Your task to perform on an android device: move an email to a new category in the gmail app Image 0: 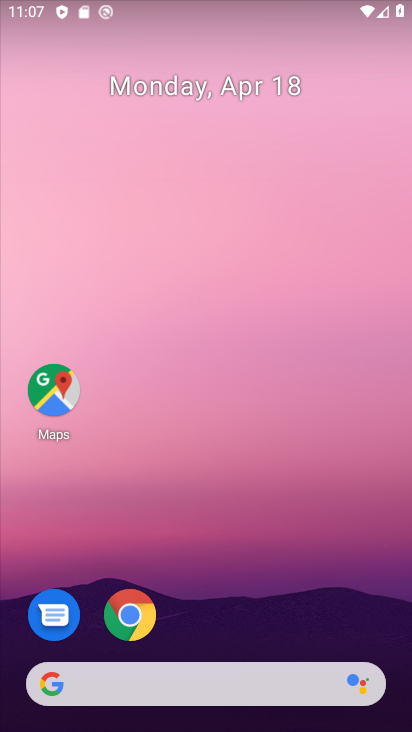
Step 0: drag from (358, 559) to (361, 105)
Your task to perform on an android device: move an email to a new category in the gmail app Image 1: 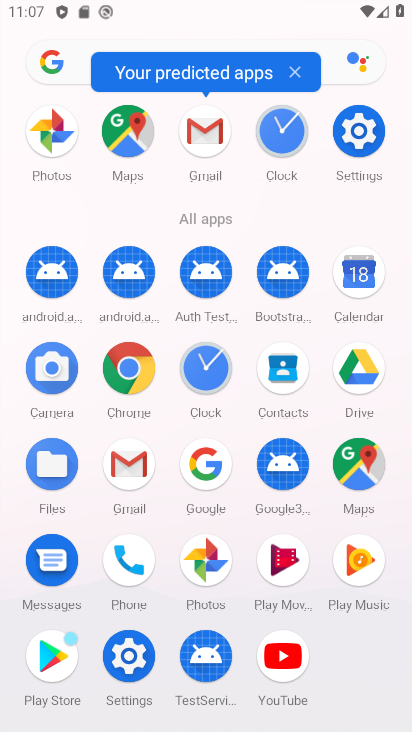
Step 1: click (129, 472)
Your task to perform on an android device: move an email to a new category in the gmail app Image 2: 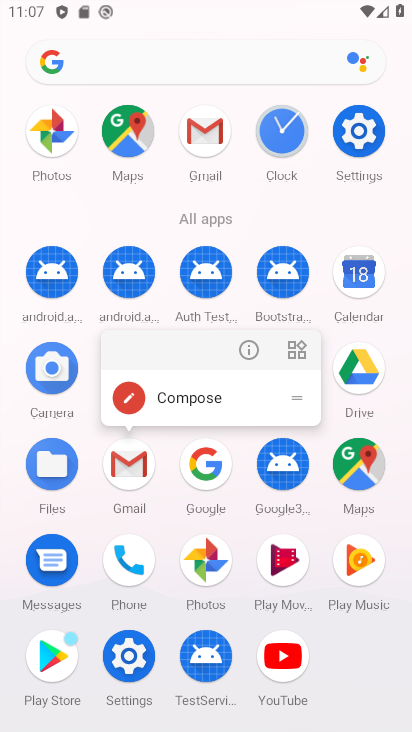
Step 2: click (129, 472)
Your task to perform on an android device: move an email to a new category in the gmail app Image 3: 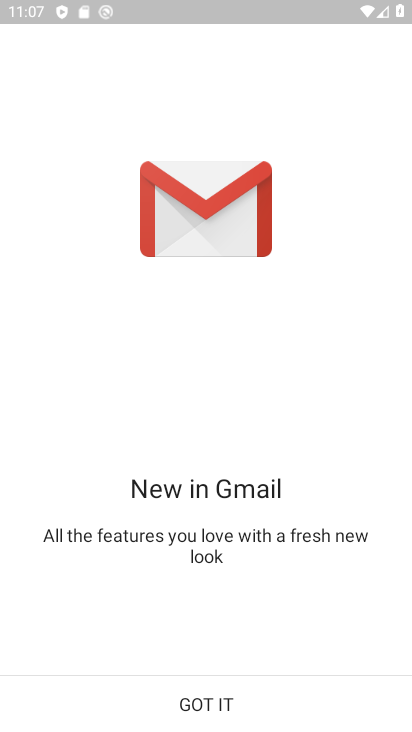
Step 3: click (209, 704)
Your task to perform on an android device: move an email to a new category in the gmail app Image 4: 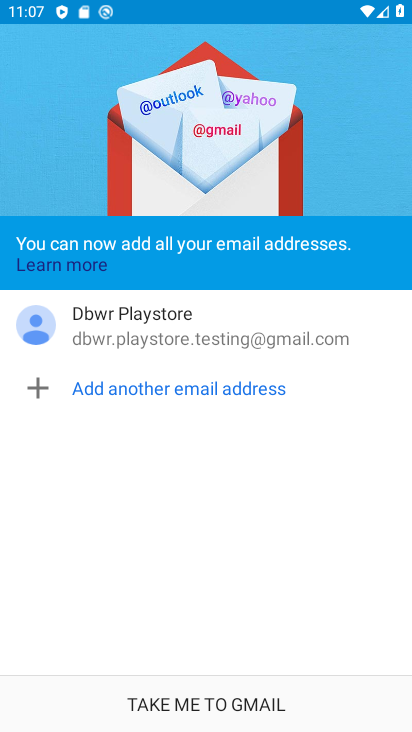
Step 4: click (249, 694)
Your task to perform on an android device: move an email to a new category in the gmail app Image 5: 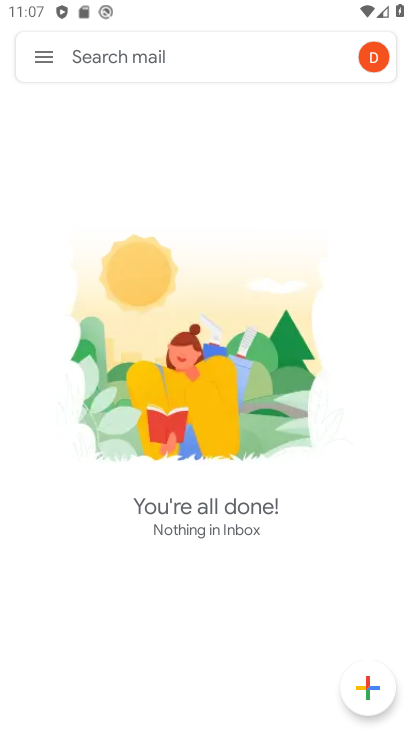
Step 5: task complete